Your task to perform on an android device: turn on sleep mode Image 0: 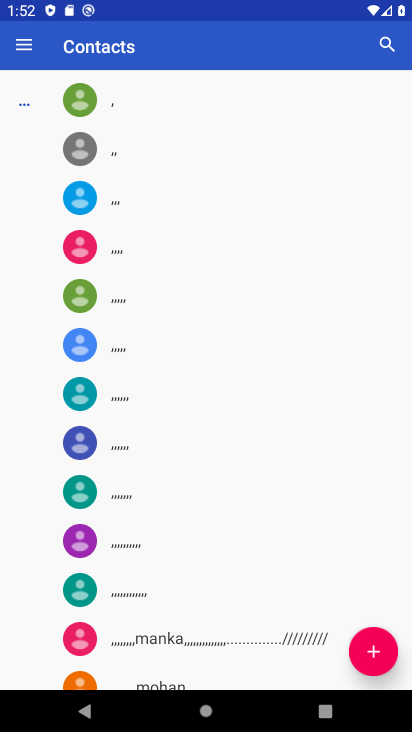
Step 0: press home button
Your task to perform on an android device: turn on sleep mode Image 1: 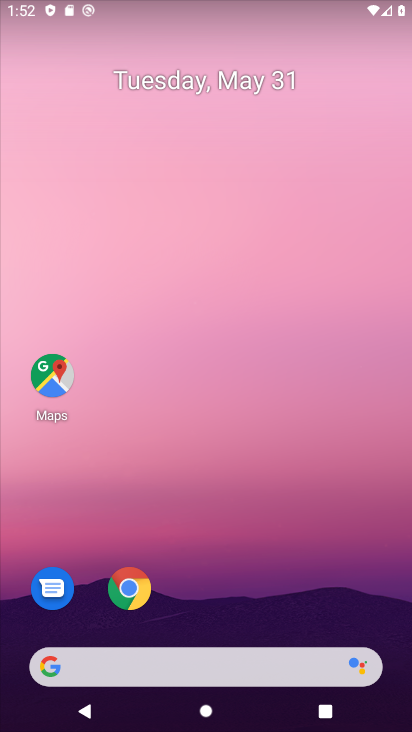
Step 1: drag from (257, 9) to (290, 685)
Your task to perform on an android device: turn on sleep mode Image 2: 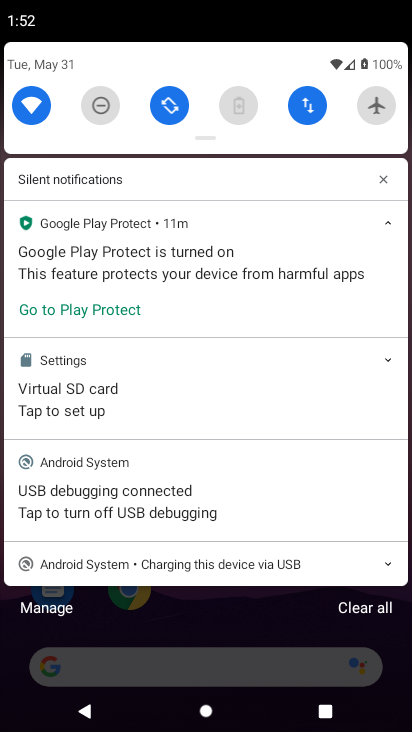
Step 2: drag from (201, 153) to (208, 720)
Your task to perform on an android device: turn on sleep mode Image 3: 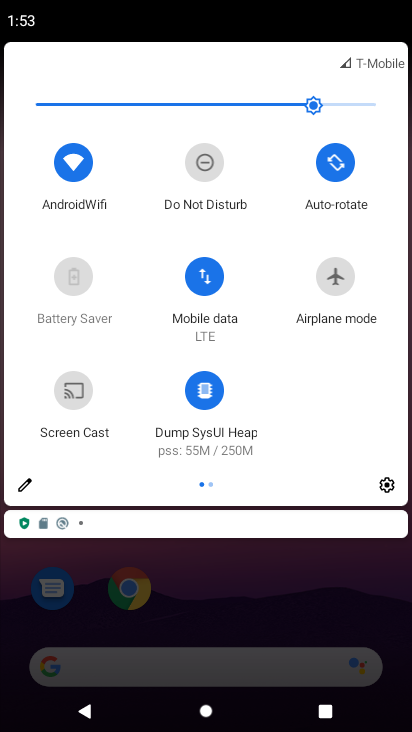
Step 3: click (25, 473)
Your task to perform on an android device: turn on sleep mode Image 4: 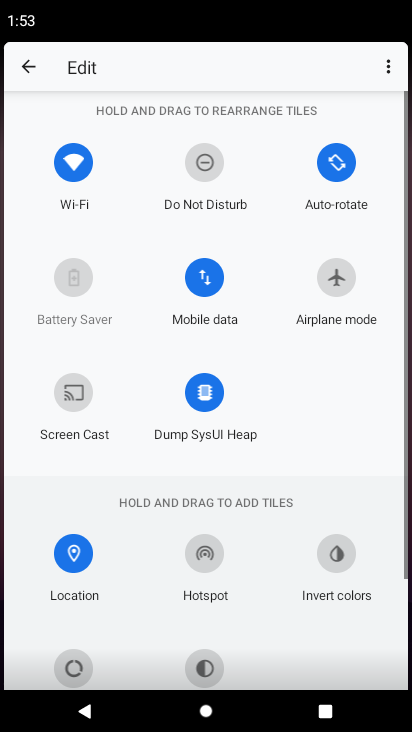
Step 4: task complete